Your task to perform on an android device: choose inbox layout in the gmail app Image 0: 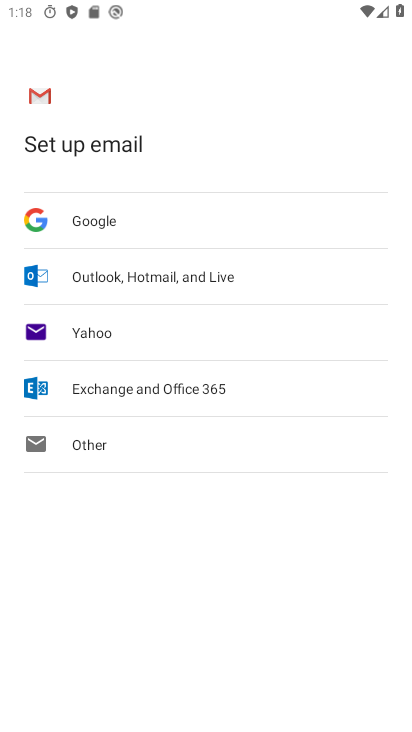
Step 0: press home button
Your task to perform on an android device: choose inbox layout in the gmail app Image 1: 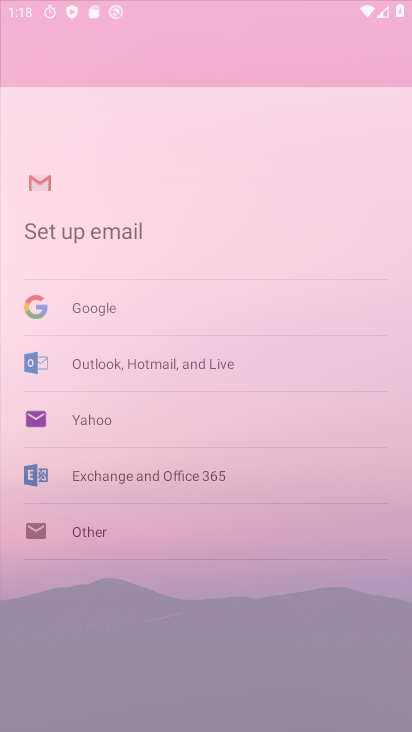
Step 1: drag from (215, 590) to (89, 728)
Your task to perform on an android device: choose inbox layout in the gmail app Image 2: 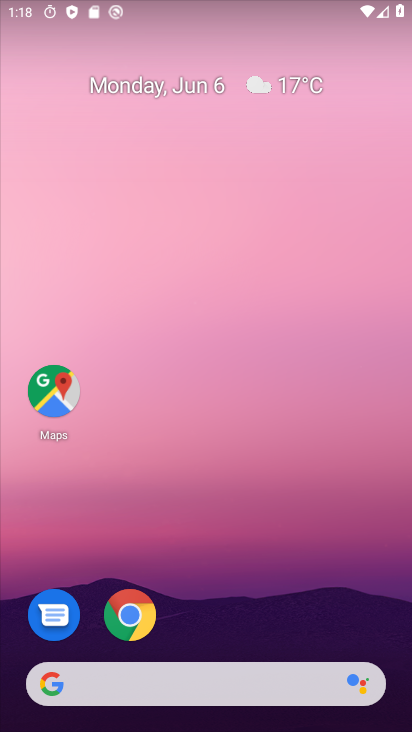
Step 2: drag from (191, 633) to (252, 58)
Your task to perform on an android device: choose inbox layout in the gmail app Image 3: 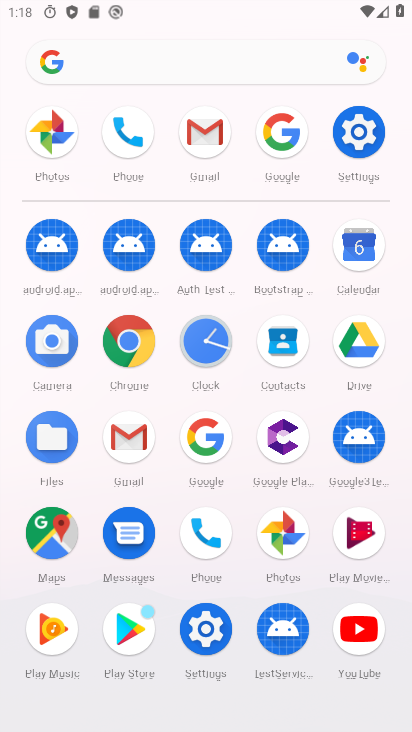
Step 3: click (127, 422)
Your task to perform on an android device: choose inbox layout in the gmail app Image 4: 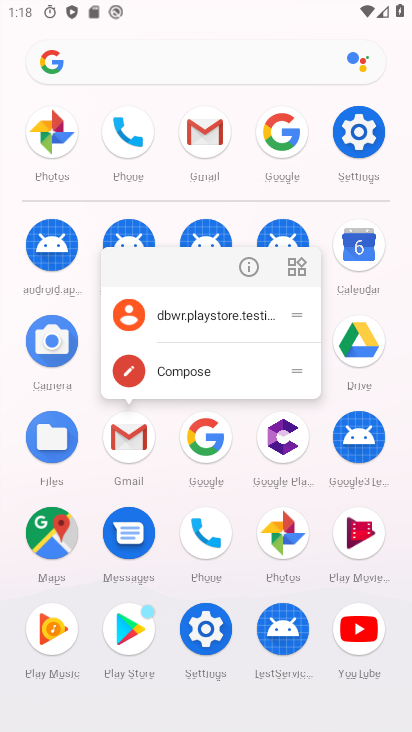
Step 4: click (211, 312)
Your task to perform on an android device: choose inbox layout in the gmail app Image 5: 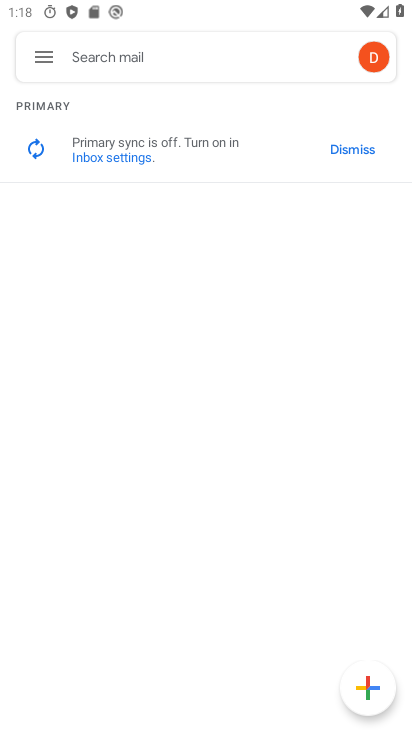
Step 5: click (36, 57)
Your task to perform on an android device: choose inbox layout in the gmail app Image 6: 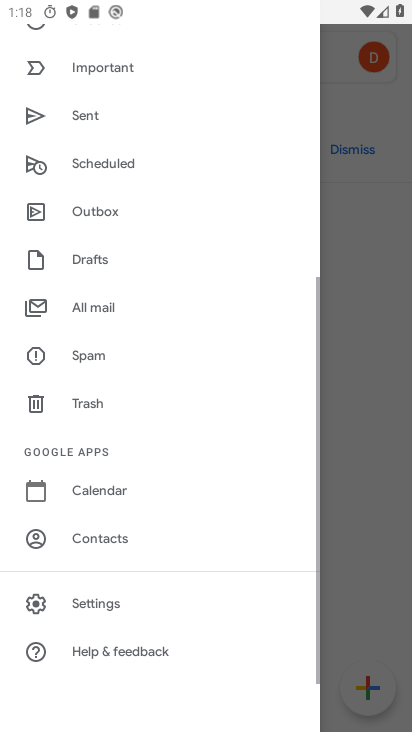
Step 6: drag from (123, 183) to (147, 701)
Your task to perform on an android device: choose inbox layout in the gmail app Image 7: 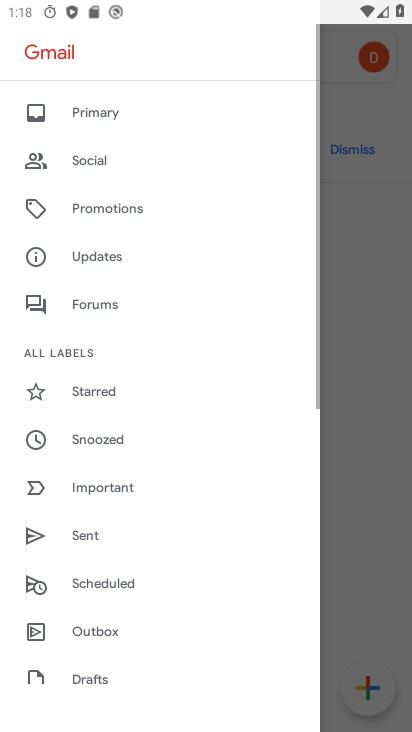
Step 7: drag from (117, 162) to (205, 510)
Your task to perform on an android device: choose inbox layout in the gmail app Image 8: 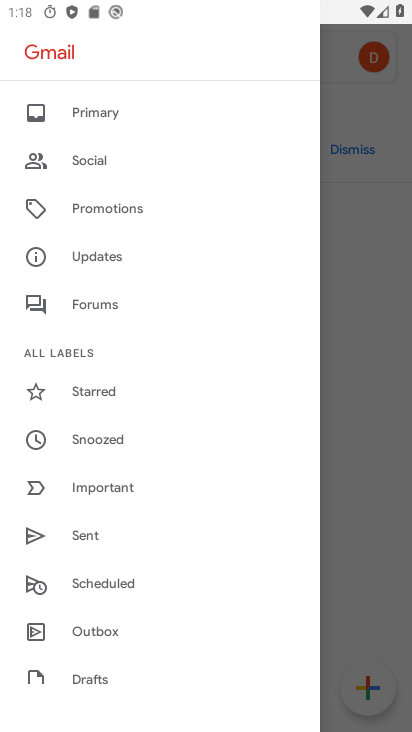
Step 8: click (104, 108)
Your task to perform on an android device: choose inbox layout in the gmail app Image 9: 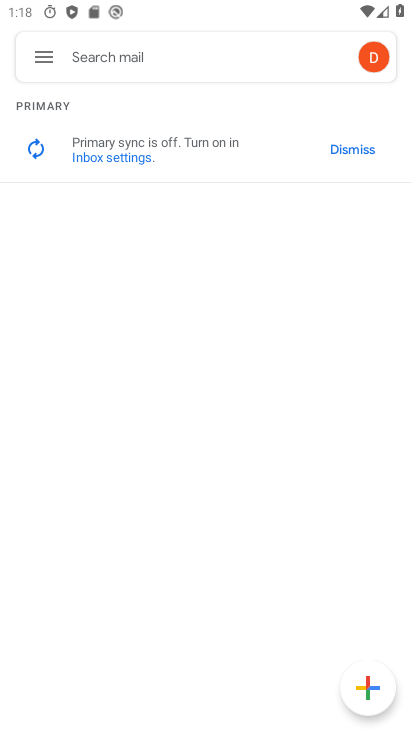
Step 9: drag from (225, 530) to (243, 139)
Your task to perform on an android device: choose inbox layout in the gmail app Image 10: 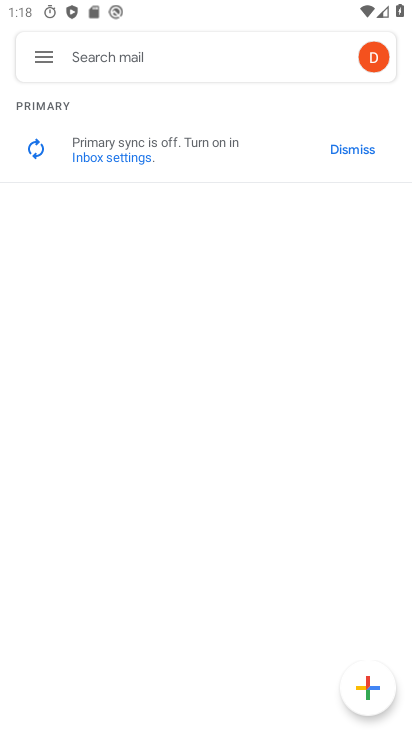
Step 10: drag from (221, 496) to (235, 207)
Your task to perform on an android device: choose inbox layout in the gmail app Image 11: 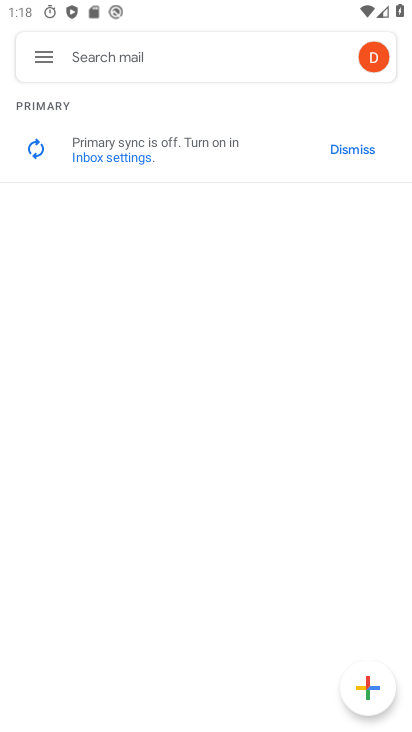
Step 11: drag from (194, 430) to (207, 91)
Your task to perform on an android device: choose inbox layout in the gmail app Image 12: 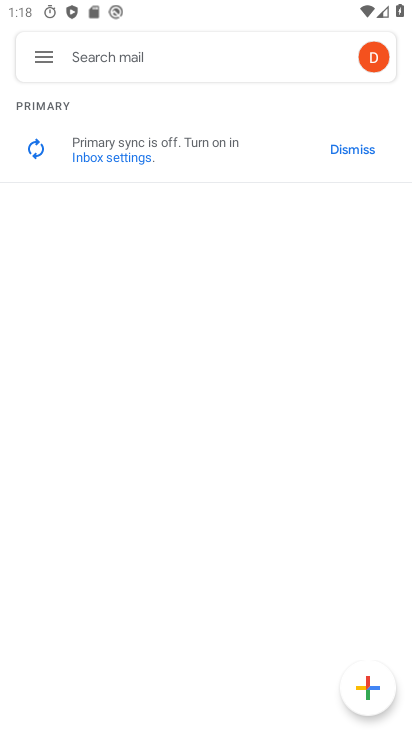
Step 12: drag from (172, 468) to (194, 236)
Your task to perform on an android device: choose inbox layout in the gmail app Image 13: 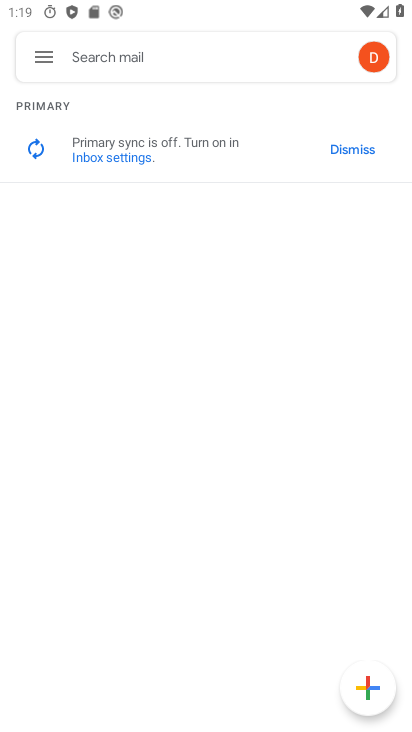
Step 13: click (47, 61)
Your task to perform on an android device: choose inbox layout in the gmail app Image 14: 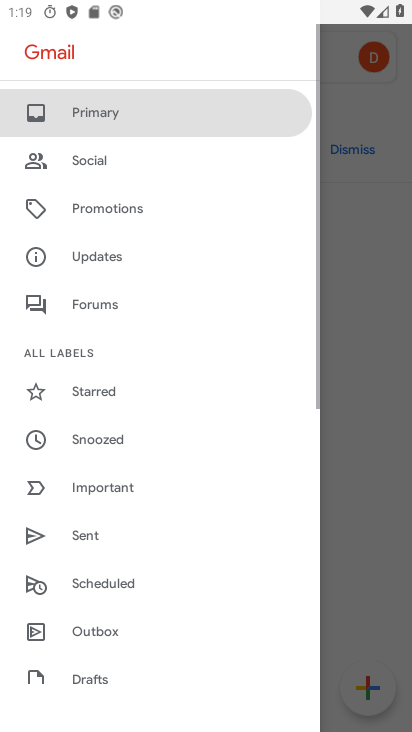
Step 14: click (115, 130)
Your task to perform on an android device: choose inbox layout in the gmail app Image 15: 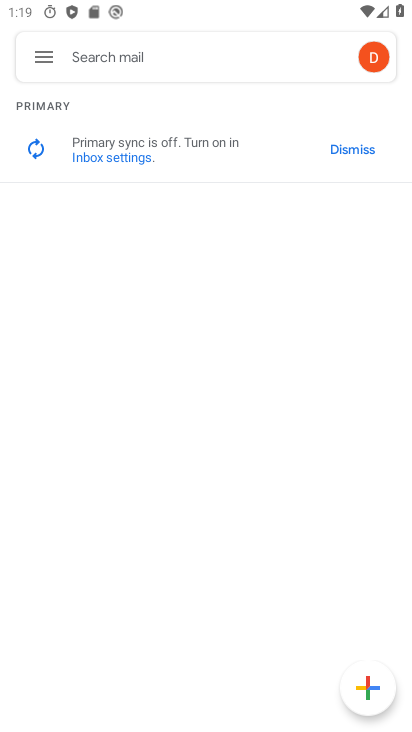
Step 15: task complete